Your task to perform on an android device: Find coffee shops on Maps Image 0: 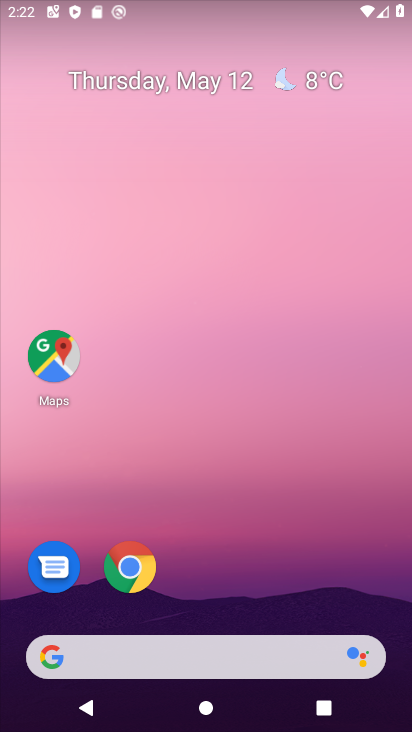
Step 0: click (52, 354)
Your task to perform on an android device: Find coffee shops on Maps Image 1: 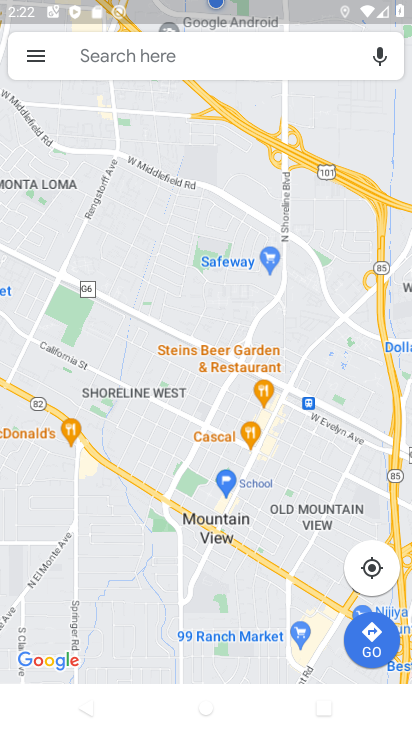
Step 1: click (132, 57)
Your task to perform on an android device: Find coffee shops on Maps Image 2: 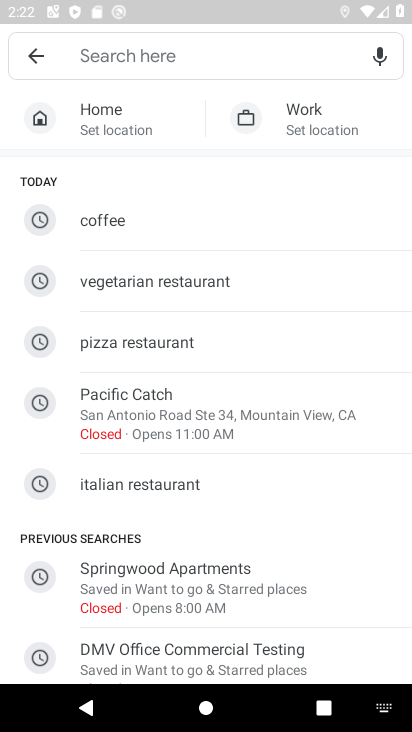
Step 2: type "coffee"
Your task to perform on an android device: Find coffee shops on Maps Image 3: 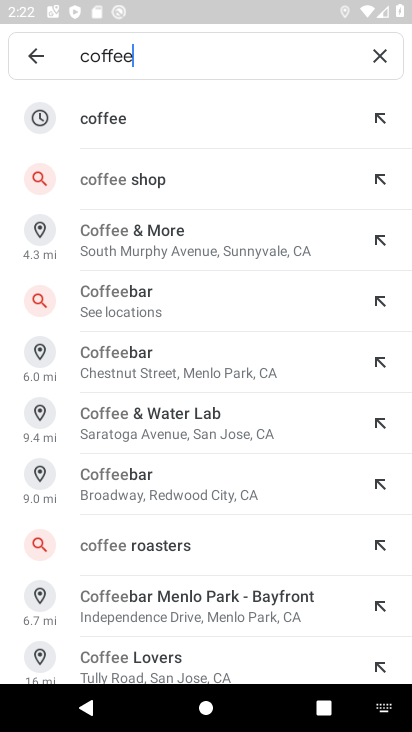
Step 3: click (167, 120)
Your task to perform on an android device: Find coffee shops on Maps Image 4: 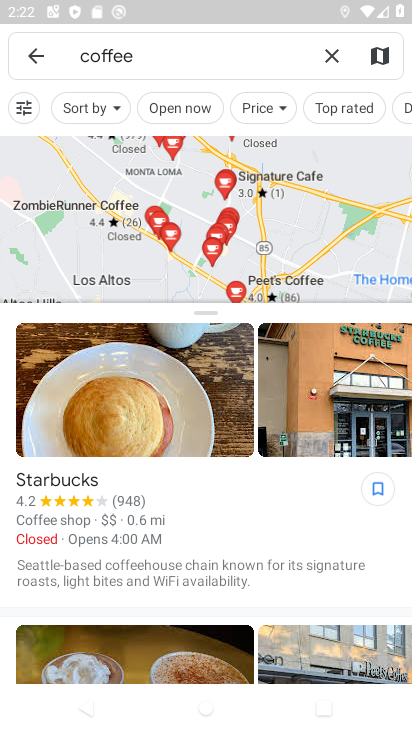
Step 4: task complete